Your task to perform on an android device: turn vacation reply on in the gmail app Image 0: 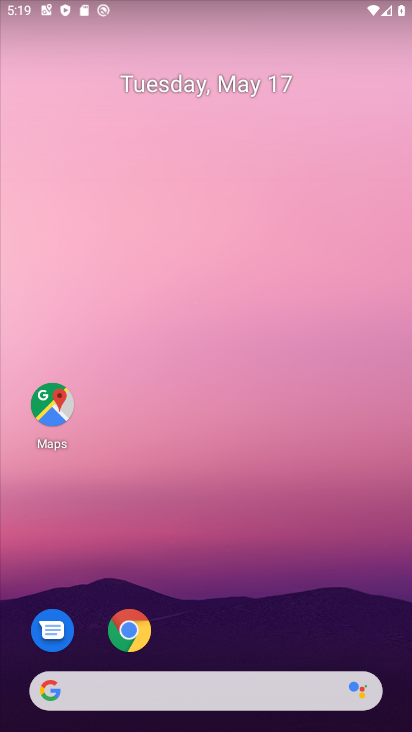
Step 0: drag from (223, 637) to (216, 40)
Your task to perform on an android device: turn vacation reply on in the gmail app Image 1: 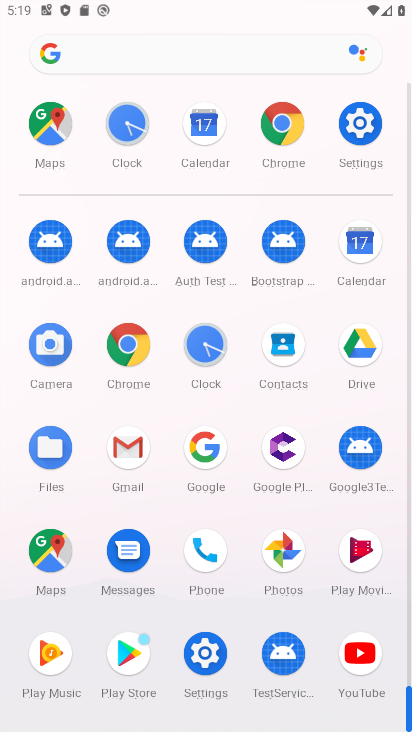
Step 1: click (135, 444)
Your task to perform on an android device: turn vacation reply on in the gmail app Image 2: 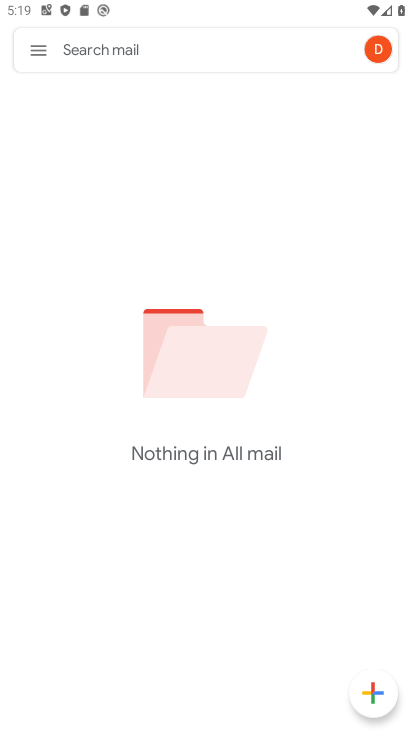
Step 2: click (41, 46)
Your task to perform on an android device: turn vacation reply on in the gmail app Image 3: 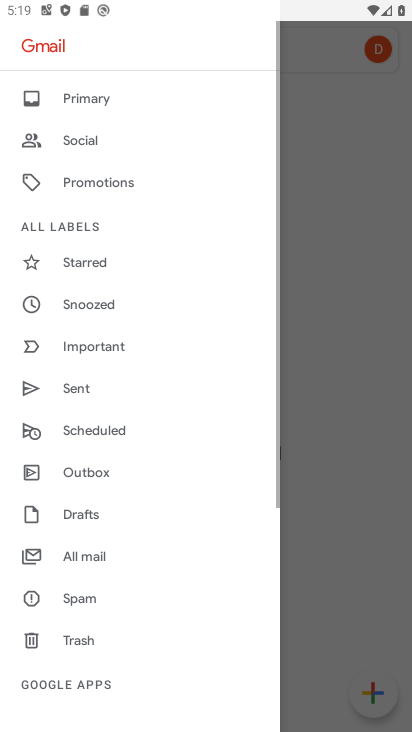
Step 3: drag from (119, 666) to (236, 230)
Your task to perform on an android device: turn vacation reply on in the gmail app Image 4: 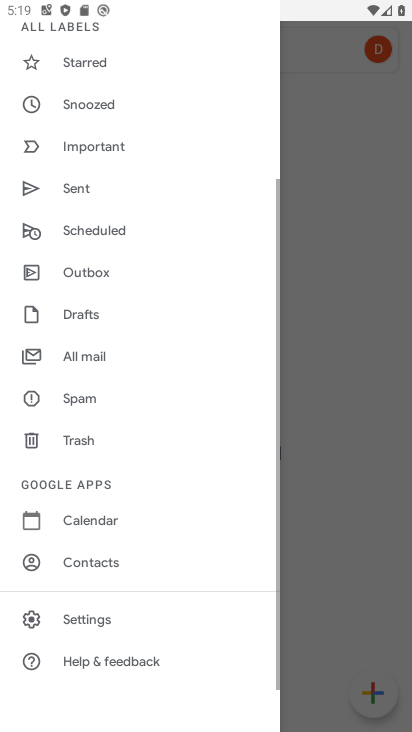
Step 4: click (107, 624)
Your task to perform on an android device: turn vacation reply on in the gmail app Image 5: 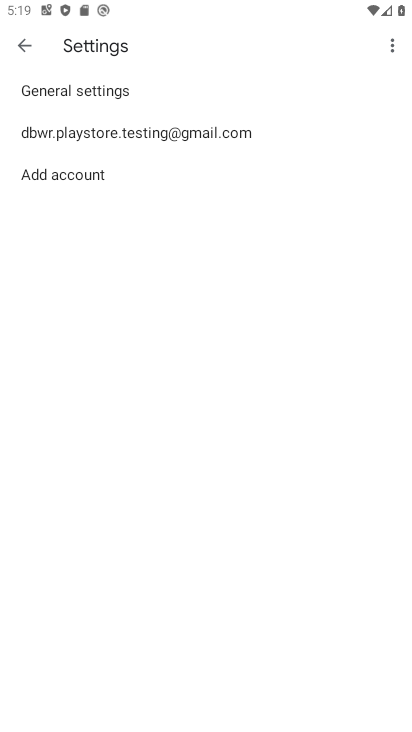
Step 5: click (173, 133)
Your task to perform on an android device: turn vacation reply on in the gmail app Image 6: 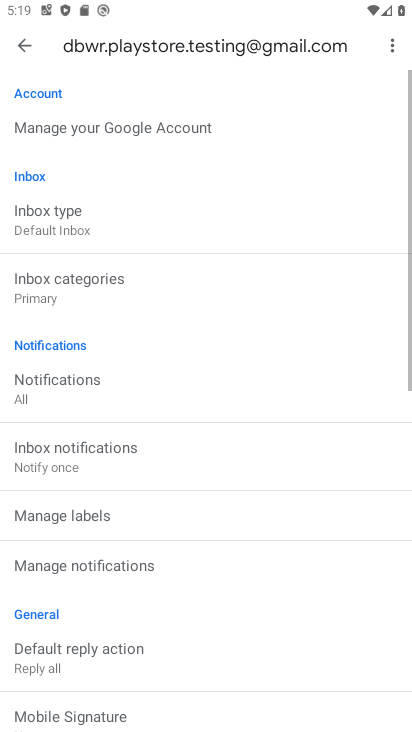
Step 6: drag from (166, 533) to (315, 52)
Your task to perform on an android device: turn vacation reply on in the gmail app Image 7: 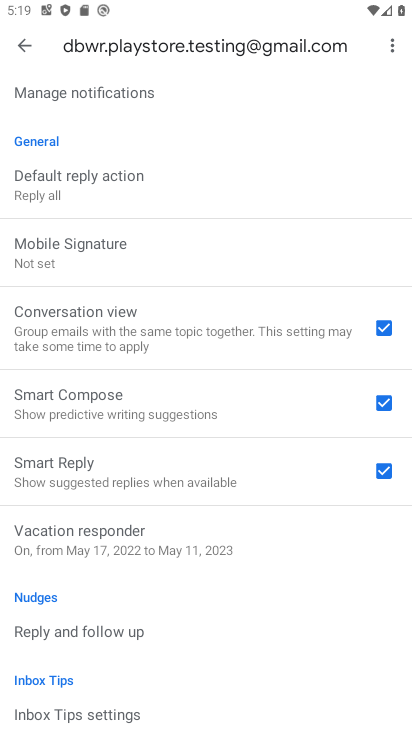
Step 7: click (167, 542)
Your task to perform on an android device: turn vacation reply on in the gmail app Image 8: 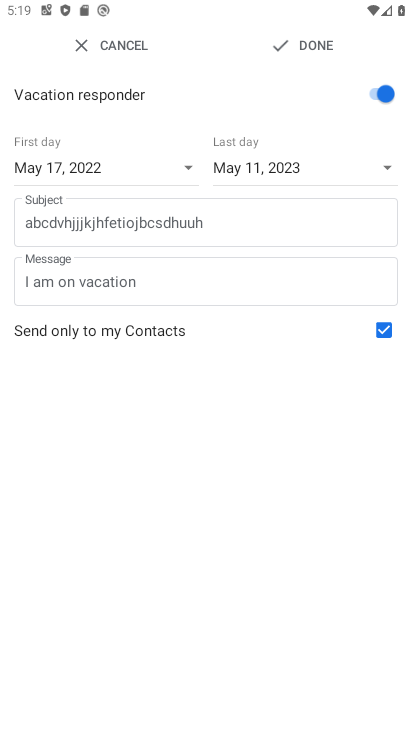
Step 8: task complete